Your task to perform on an android device: Search for sushi restaurants on Maps Image 0: 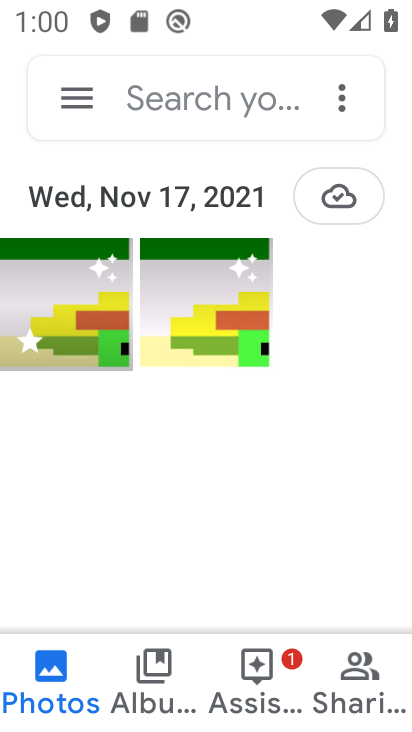
Step 0: press home button
Your task to perform on an android device: Search for sushi restaurants on Maps Image 1: 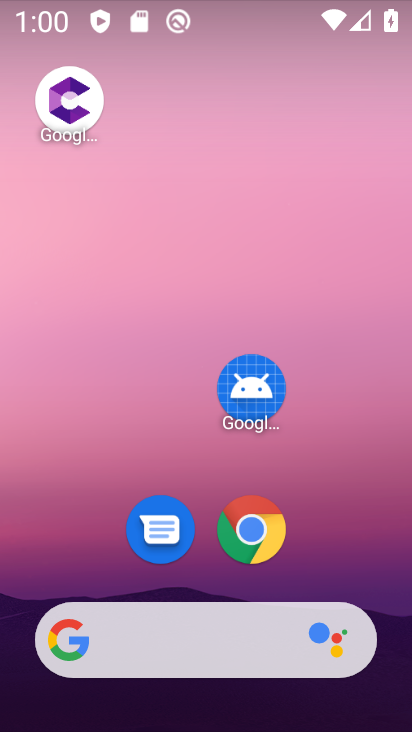
Step 1: drag from (246, 345) to (281, 98)
Your task to perform on an android device: Search for sushi restaurants on Maps Image 2: 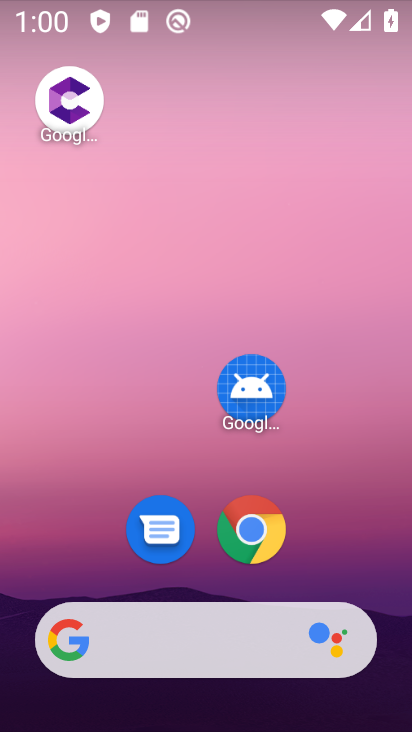
Step 2: drag from (287, 623) to (338, 102)
Your task to perform on an android device: Search for sushi restaurants on Maps Image 3: 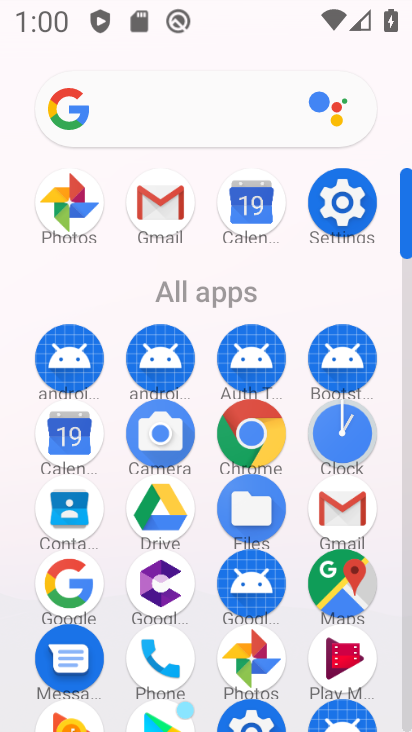
Step 3: click (357, 588)
Your task to perform on an android device: Search for sushi restaurants on Maps Image 4: 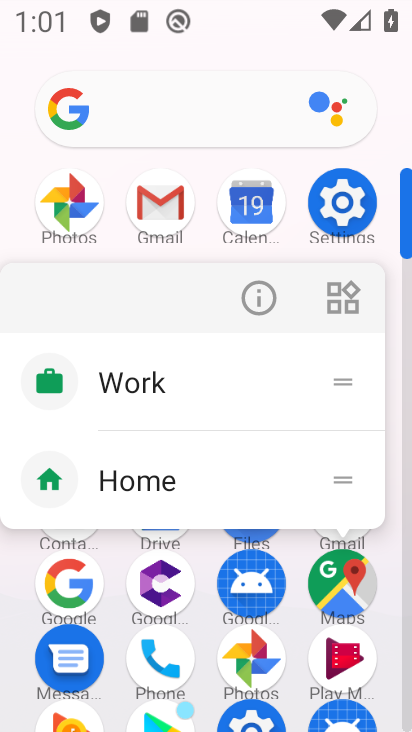
Step 4: click (348, 587)
Your task to perform on an android device: Search for sushi restaurants on Maps Image 5: 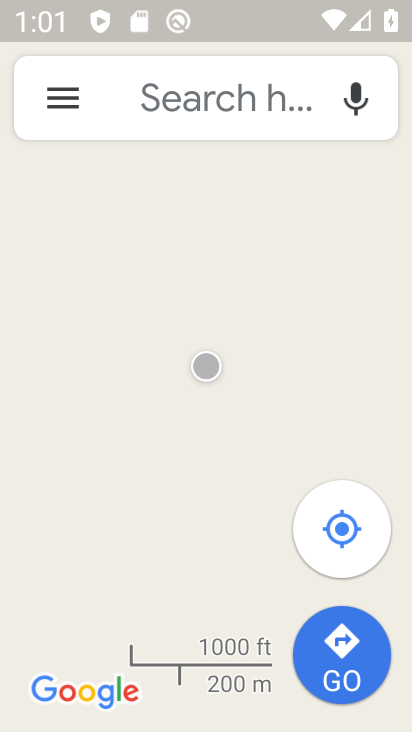
Step 5: click (181, 112)
Your task to perform on an android device: Search for sushi restaurants on Maps Image 6: 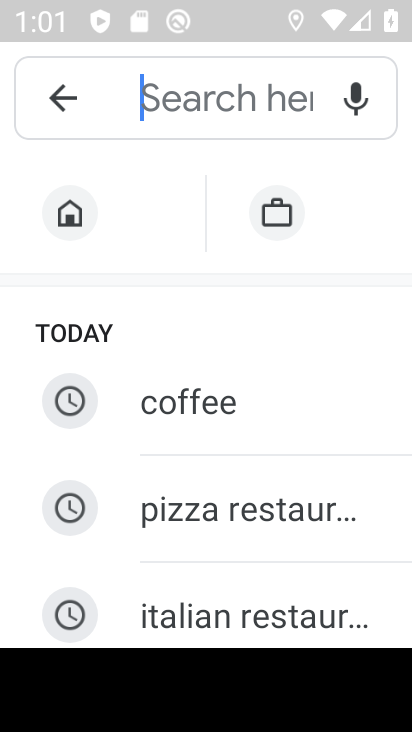
Step 6: type "sushi restaurants"
Your task to perform on an android device: Search for sushi restaurants on Maps Image 7: 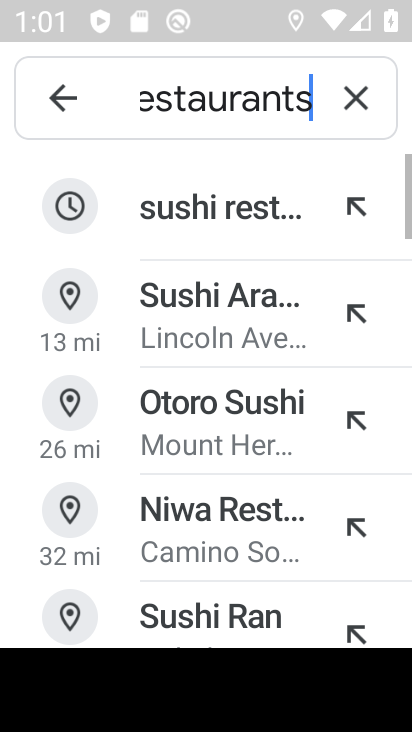
Step 7: click (249, 210)
Your task to perform on an android device: Search for sushi restaurants on Maps Image 8: 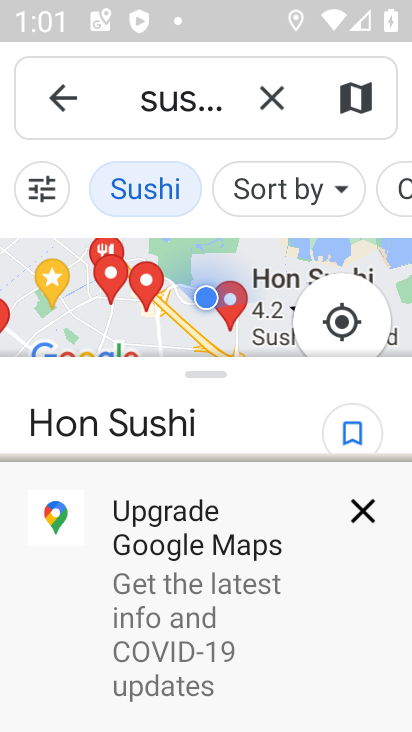
Step 8: task complete